Your task to perform on an android device: turn on data saver in the chrome app Image 0: 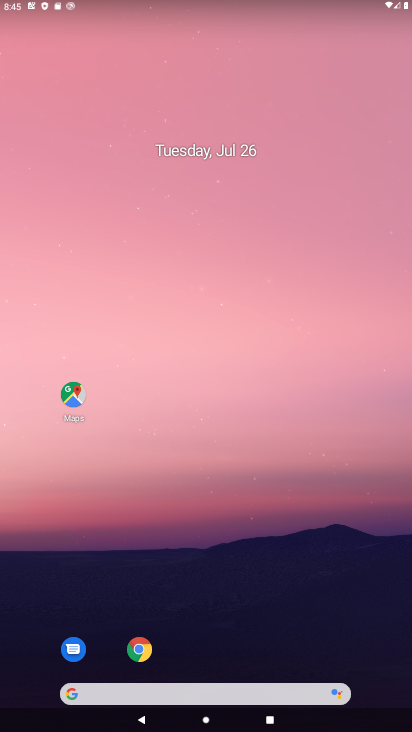
Step 0: drag from (202, 569) to (254, 270)
Your task to perform on an android device: turn on data saver in the chrome app Image 1: 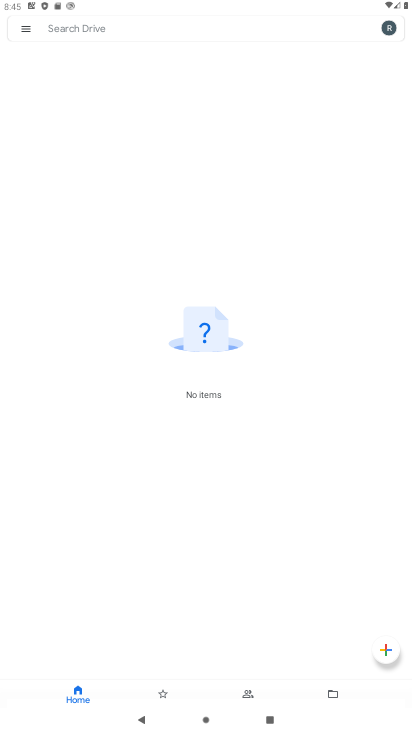
Step 1: press home button
Your task to perform on an android device: turn on data saver in the chrome app Image 2: 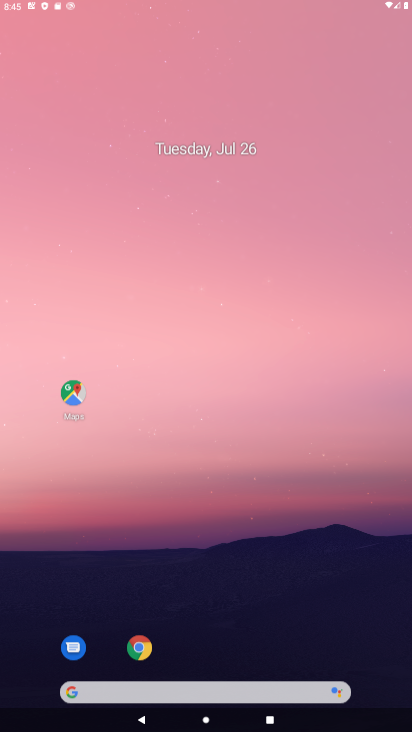
Step 2: drag from (222, 514) to (255, 45)
Your task to perform on an android device: turn on data saver in the chrome app Image 3: 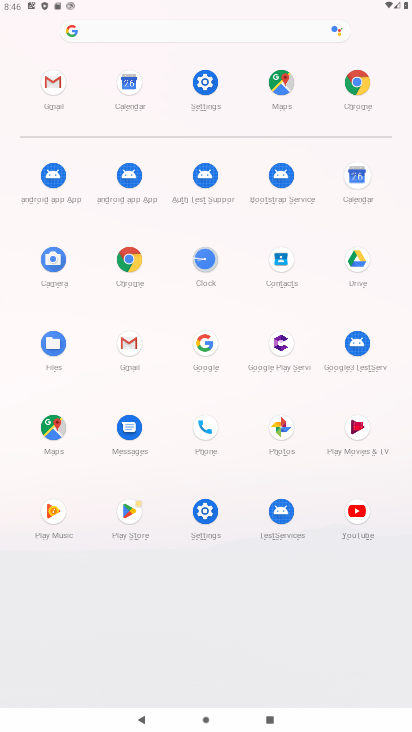
Step 3: click (135, 247)
Your task to perform on an android device: turn on data saver in the chrome app Image 4: 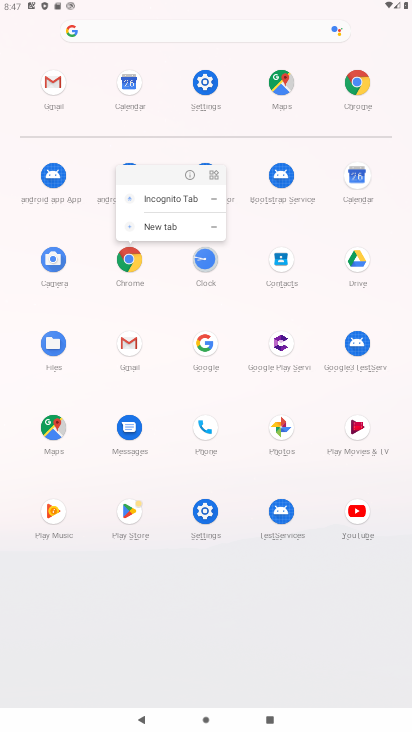
Step 4: click (183, 180)
Your task to perform on an android device: turn on data saver in the chrome app Image 5: 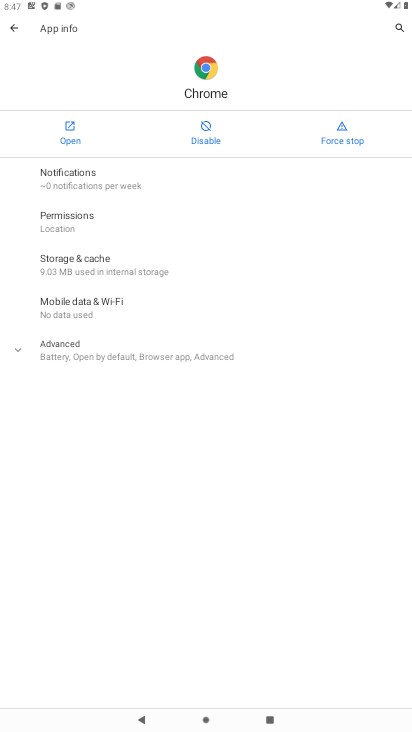
Step 5: click (73, 123)
Your task to perform on an android device: turn on data saver in the chrome app Image 6: 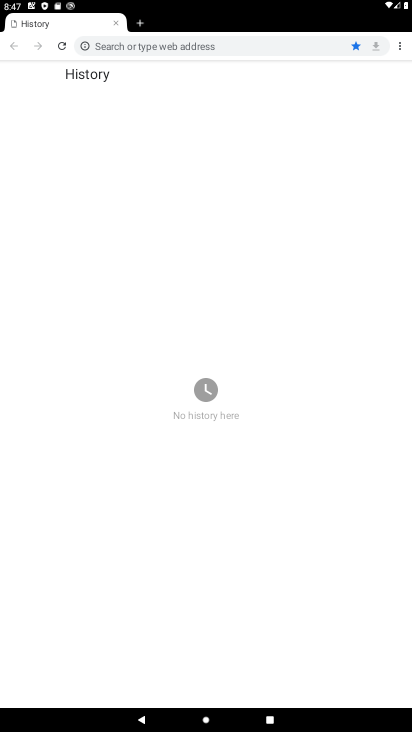
Step 6: drag from (400, 40) to (333, 216)
Your task to perform on an android device: turn on data saver in the chrome app Image 7: 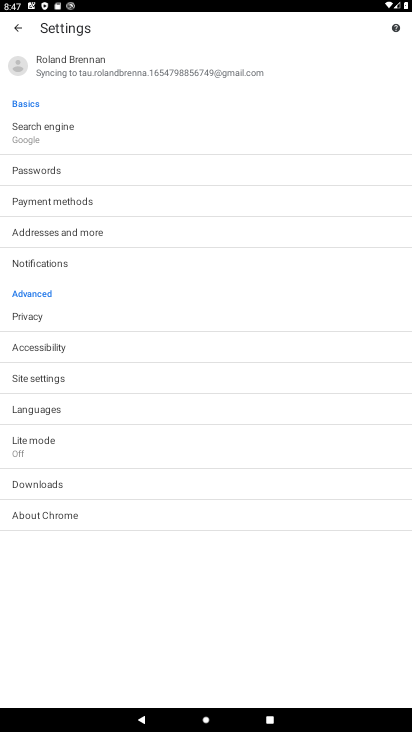
Step 7: click (62, 450)
Your task to perform on an android device: turn on data saver in the chrome app Image 8: 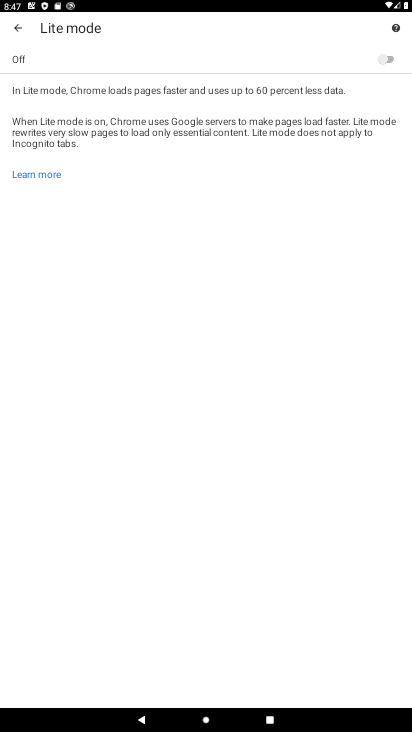
Step 8: drag from (199, 583) to (225, 378)
Your task to perform on an android device: turn on data saver in the chrome app Image 9: 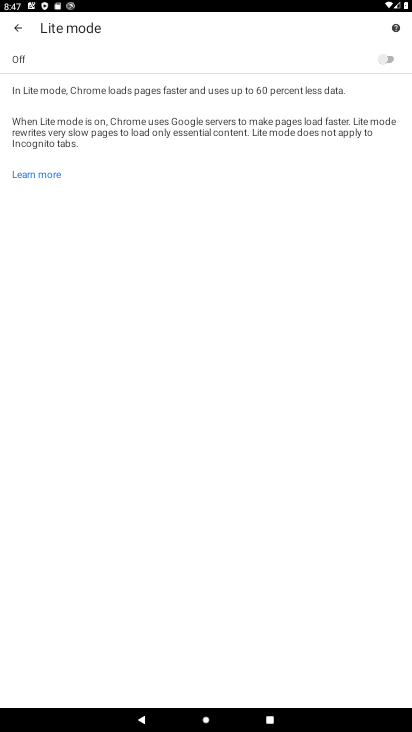
Step 9: click (373, 54)
Your task to perform on an android device: turn on data saver in the chrome app Image 10: 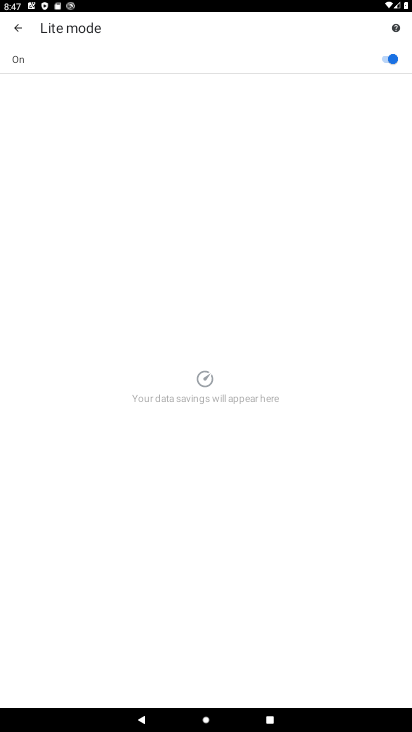
Step 10: task complete